Your task to perform on an android device: Open Maps and search for coffee Image 0: 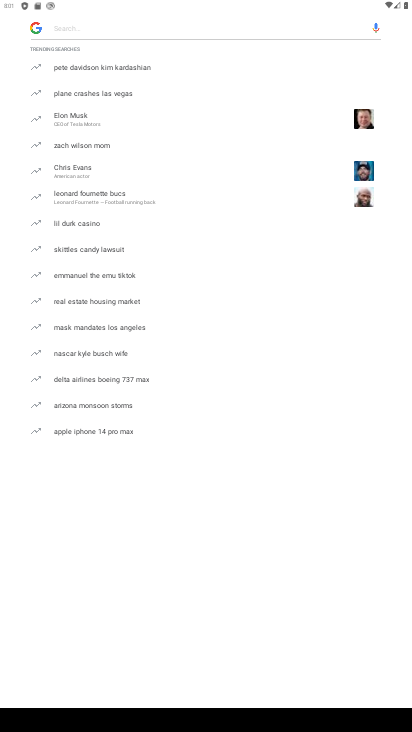
Step 0: press home button
Your task to perform on an android device: Open Maps and search for coffee Image 1: 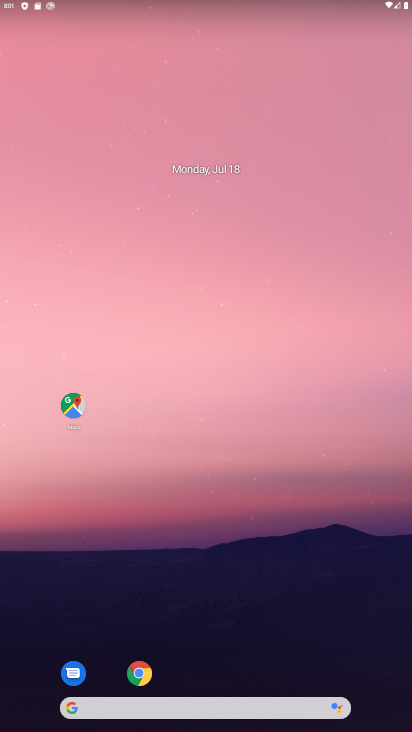
Step 1: click (69, 403)
Your task to perform on an android device: Open Maps and search for coffee Image 2: 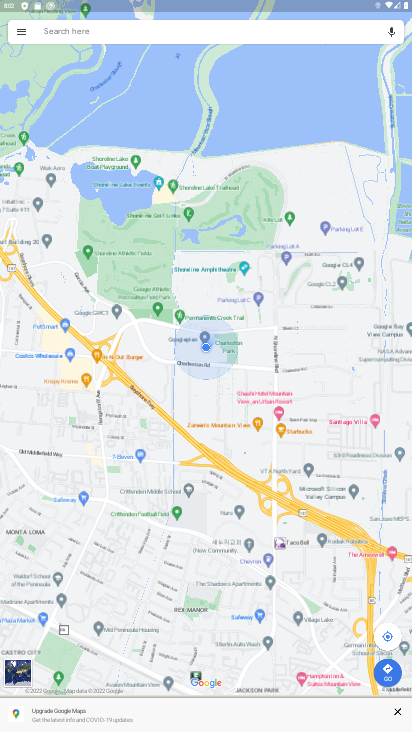
Step 2: click (88, 29)
Your task to perform on an android device: Open Maps and search for coffee Image 3: 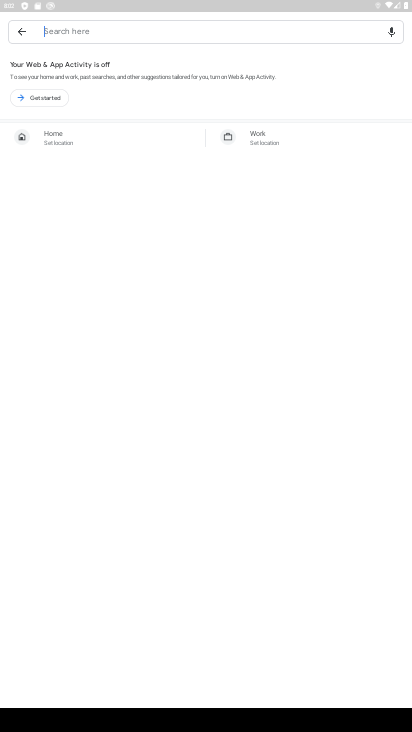
Step 3: type "coffee"
Your task to perform on an android device: Open Maps and search for coffee Image 4: 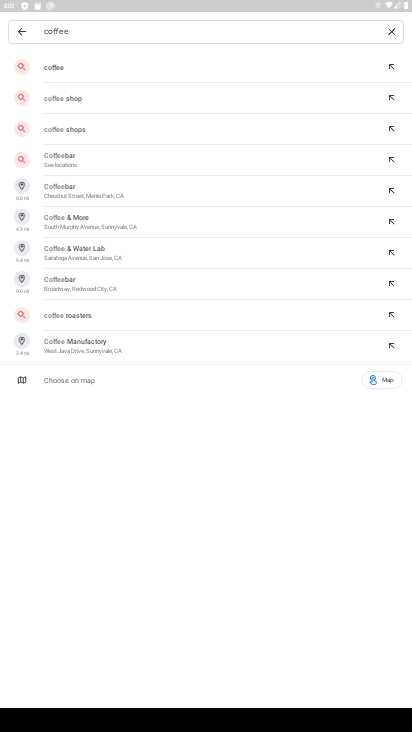
Step 4: click (59, 61)
Your task to perform on an android device: Open Maps and search for coffee Image 5: 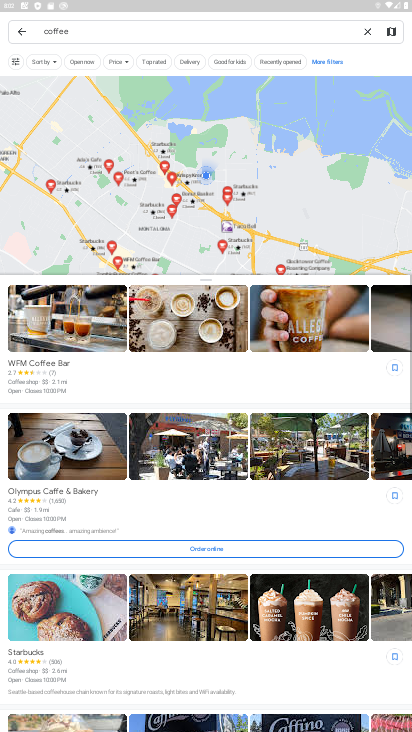
Step 5: task complete